Your task to perform on an android device: Add bose soundlink mini to the cart on amazon, then select checkout. Image 0: 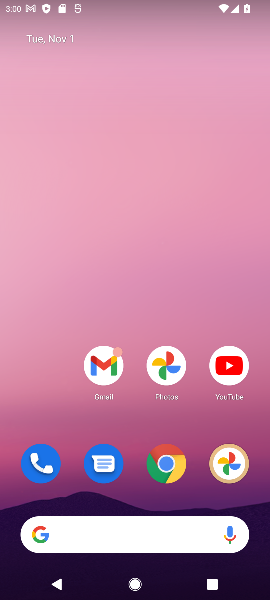
Step 0: drag from (141, 497) to (159, 141)
Your task to perform on an android device: Add bose soundlink mini to the cart on amazon, then select checkout. Image 1: 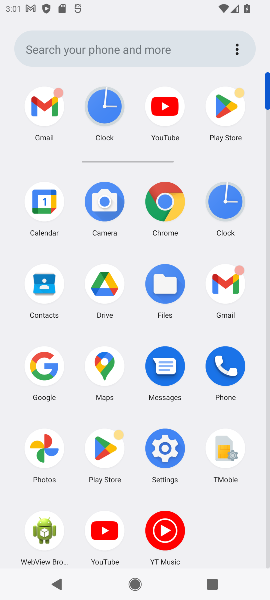
Step 1: click (169, 202)
Your task to perform on an android device: Add bose soundlink mini to the cart on amazon, then select checkout. Image 2: 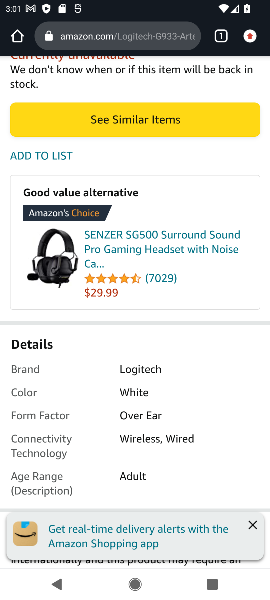
Step 2: click (161, 29)
Your task to perform on an android device: Add bose soundlink mini to the cart on amazon, then select checkout. Image 3: 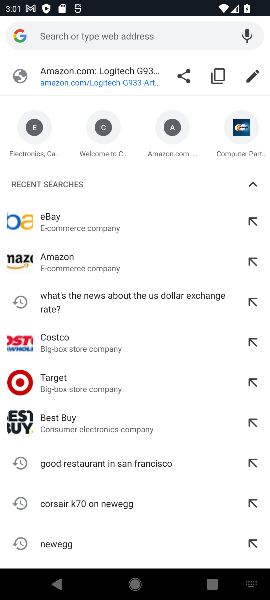
Step 3: type "amazon.com"
Your task to perform on an android device: Add bose soundlink mini to the cart on amazon, then select checkout. Image 4: 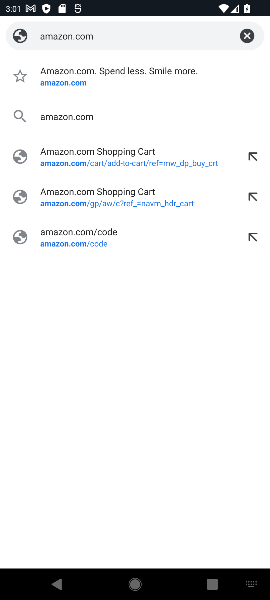
Step 4: press enter
Your task to perform on an android device: Add bose soundlink mini to the cart on amazon, then select checkout. Image 5: 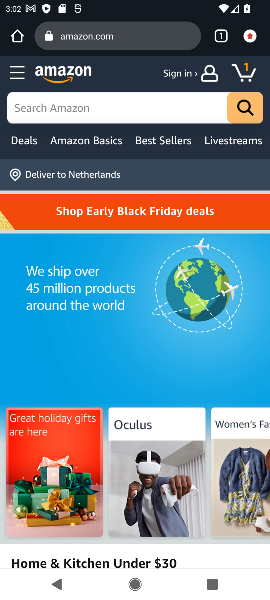
Step 5: click (130, 109)
Your task to perform on an android device: Add bose soundlink mini to the cart on amazon, then select checkout. Image 6: 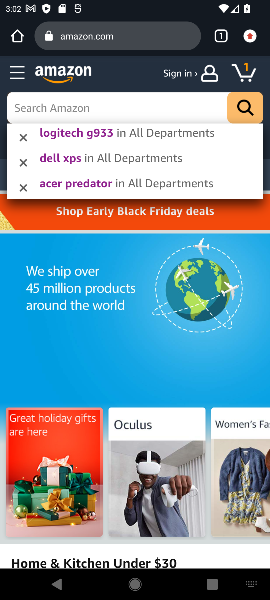
Step 6: type "bose soundlink mini"
Your task to perform on an android device: Add bose soundlink mini to the cart on amazon, then select checkout. Image 7: 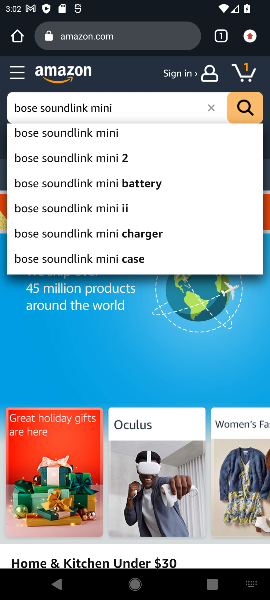
Step 7: press enter
Your task to perform on an android device: Add bose soundlink mini to the cart on amazon, then select checkout. Image 8: 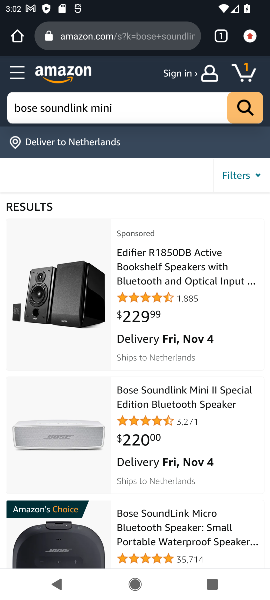
Step 8: click (49, 441)
Your task to perform on an android device: Add bose soundlink mini to the cart on amazon, then select checkout. Image 9: 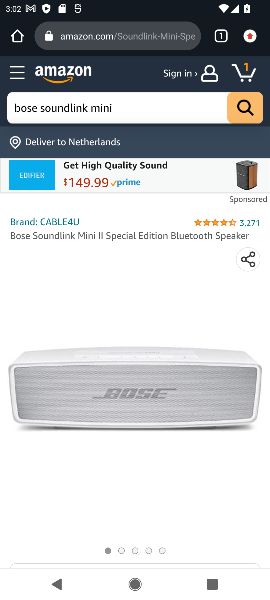
Step 9: drag from (176, 465) to (235, 180)
Your task to perform on an android device: Add bose soundlink mini to the cart on amazon, then select checkout. Image 10: 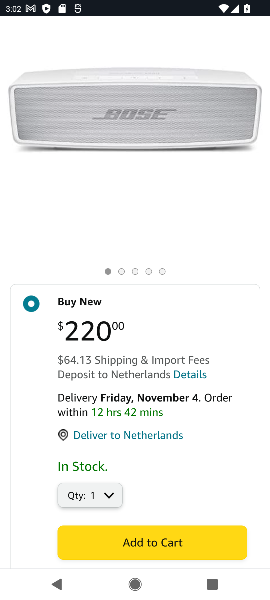
Step 10: click (181, 540)
Your task to perform on an android device: Add bose soundlink mini to the cart on amazon, then select checkout. Image 11: 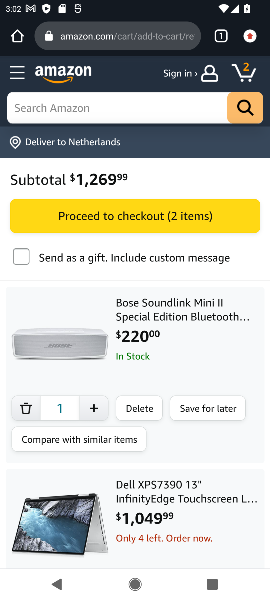
Step 11: click (162, 207)
Your task to perform on an android device: Add bose soundlink mini to the cart on amazon, then select checkout. Image 12: 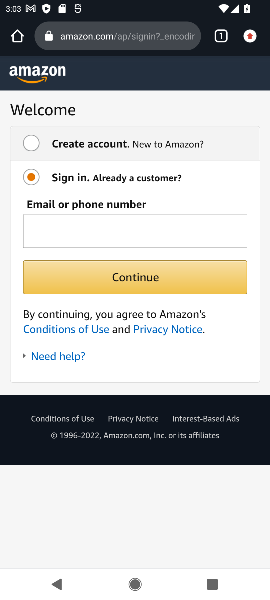
Step 12: task complete